Your task to perform on an android device: Open CNN.com Image 0: 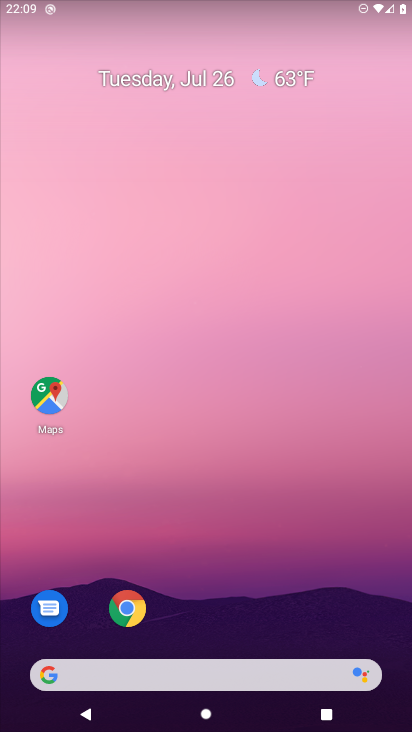
Step 0: click (114, 675)
Your task to perform on an android device: Open CNN.com Image 1: 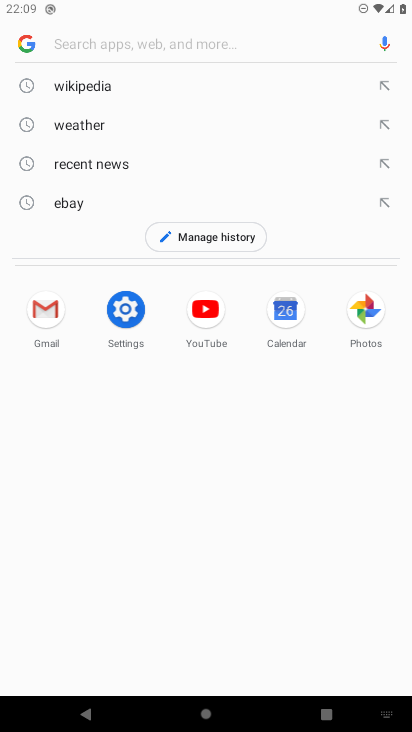
Step 1: type "CNN.com"
Your task to perform on an android device: Open CNN.com Image 2: 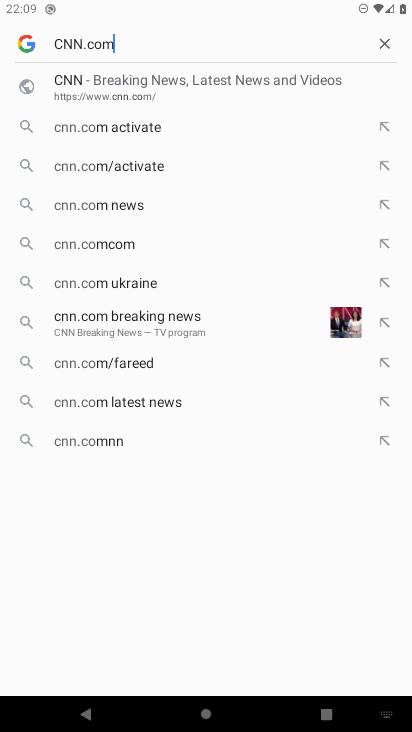
Step 2: type ""
Your task to perform on an android device: Open CNN.com Image 3: 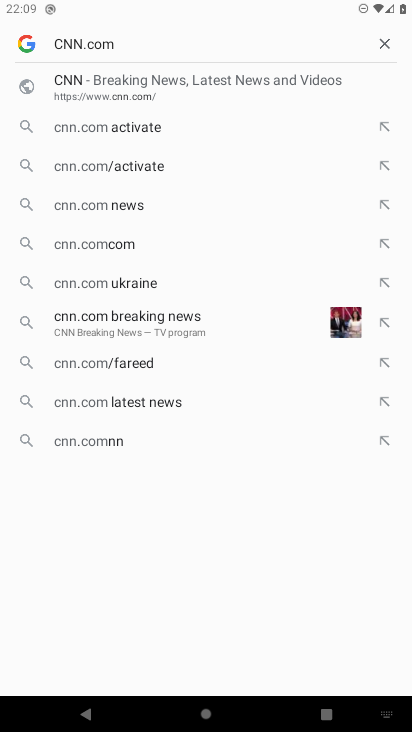
Step 3: click (73, 87)
Your task to perform on an android device: Open CNN.com Image 4: 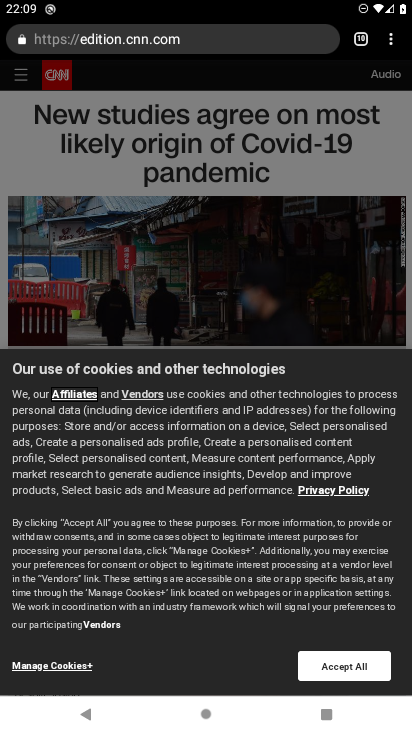
Step 4: task complete